Your task to perform on an android device: Show the shopping cart on bestbuy.com. Add "macbook" to the cart on bestbuy.com Image 0: 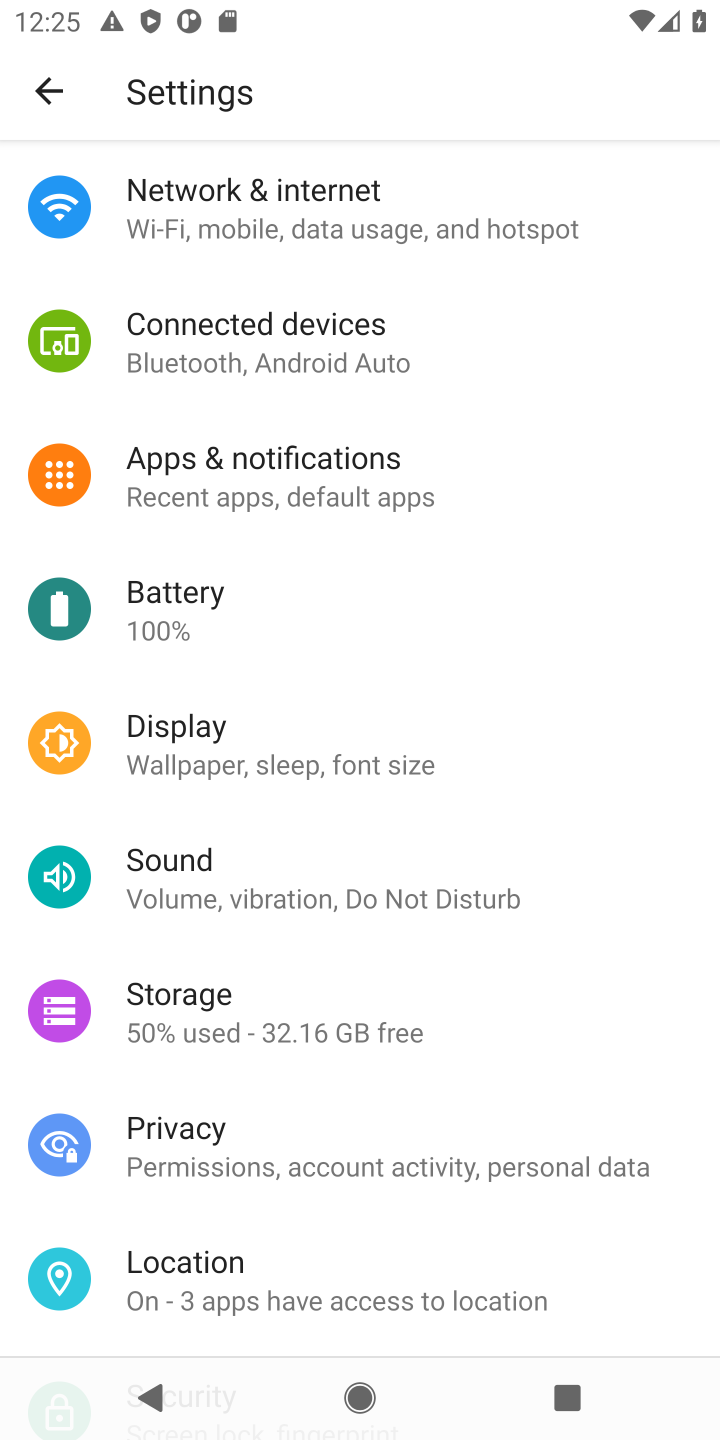
Step 0: press home button
Your task to perform on an android device: Show the shopping cart on bestbuy.com. Add "macbook" to the cart on bestbuy.com Image 1: 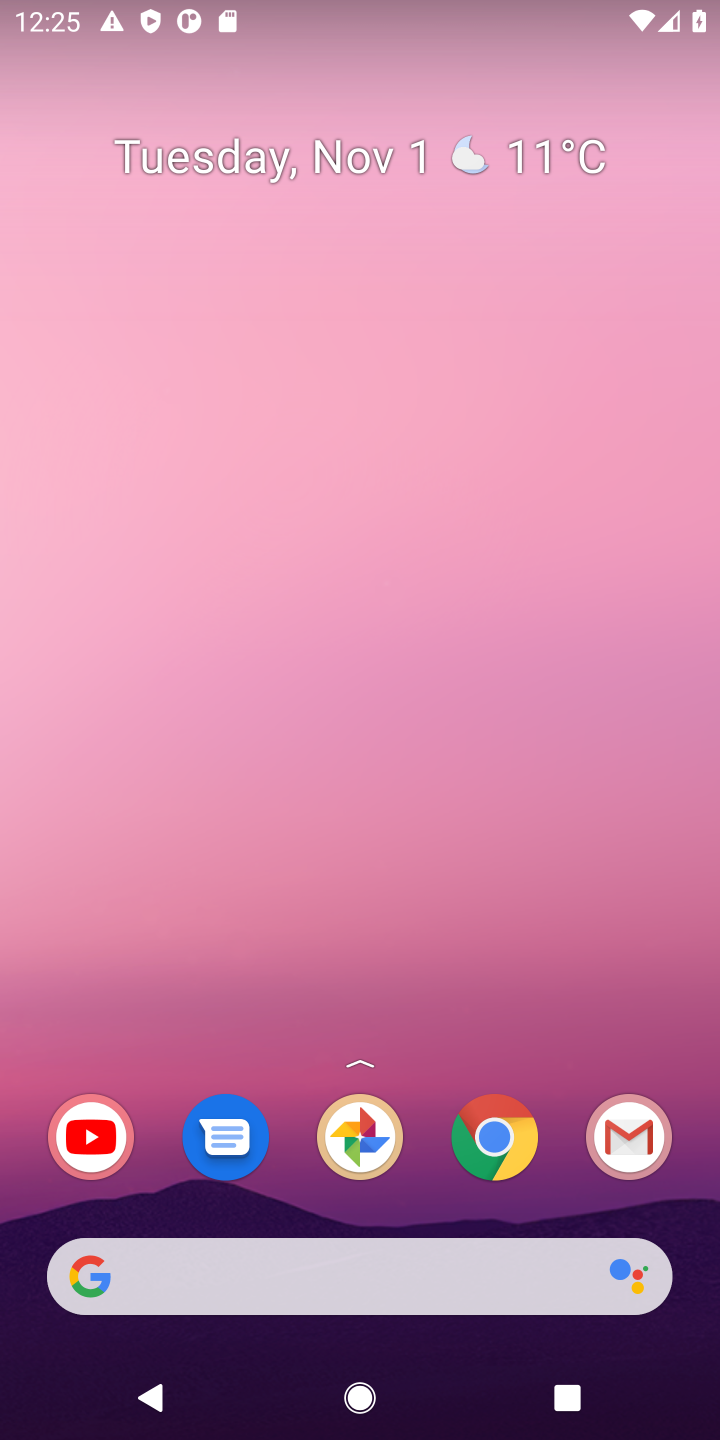
Step 1: click (498, 1132)
Your task to perform on an android device: Show the shopping cart on bestbuy.com. Add "macbook" to the cart on bestbuy.com Image 2: 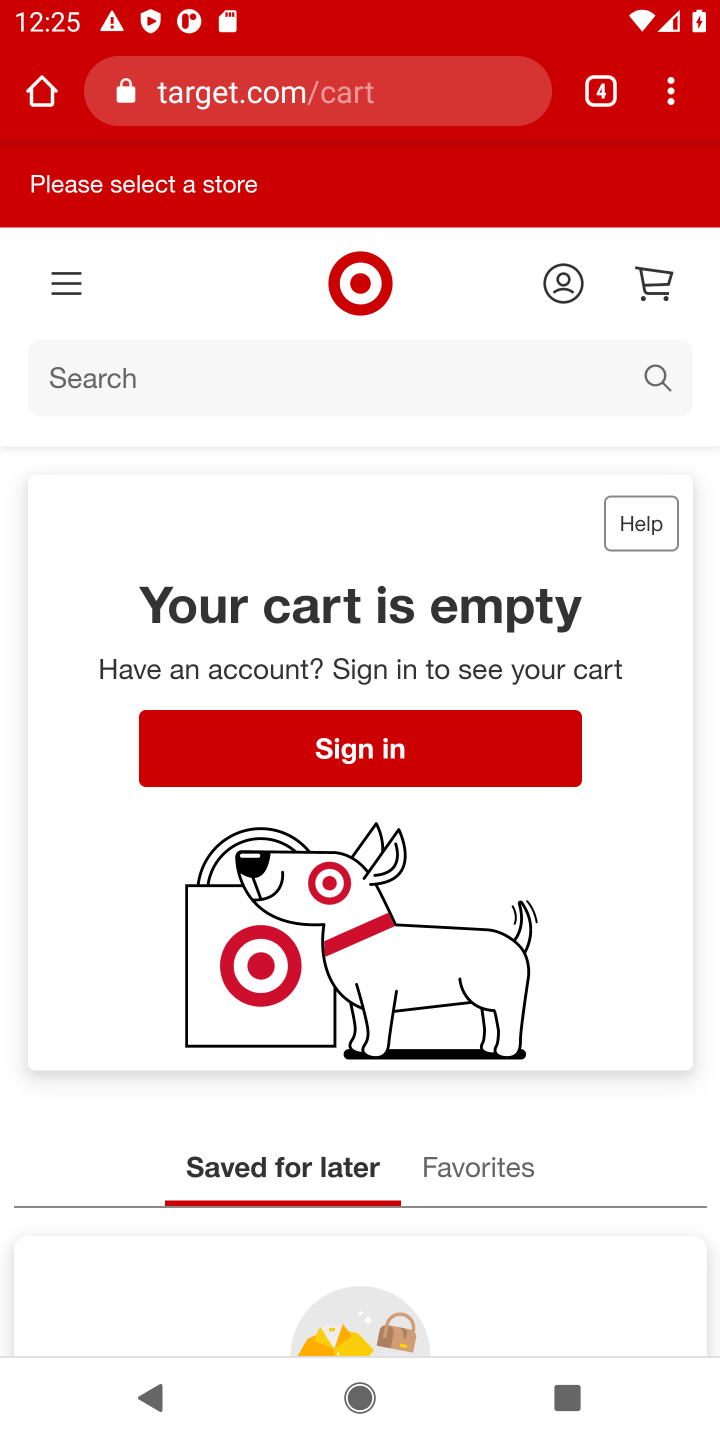
Step 2: click (606, 91)
Your task to perform on an android device: Show the shopping cart on bestbuy.com. Add "macbook" to the cart on bestbuy.com Image 3: 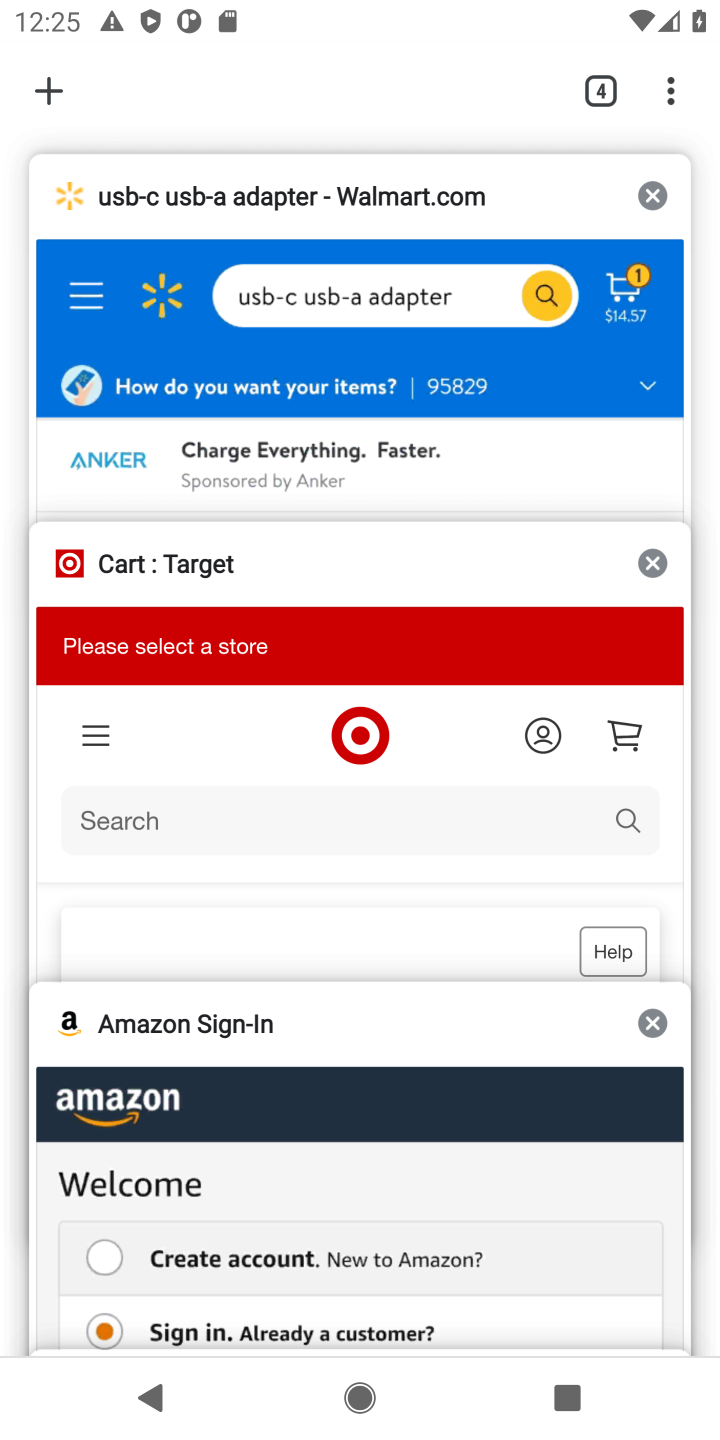
Step 3: click (46, 105)
Your task to perform on an android device: Show the shopping cart on bestbuy.com. Add "macbook" to the cart on bestbuy.com Image 4: 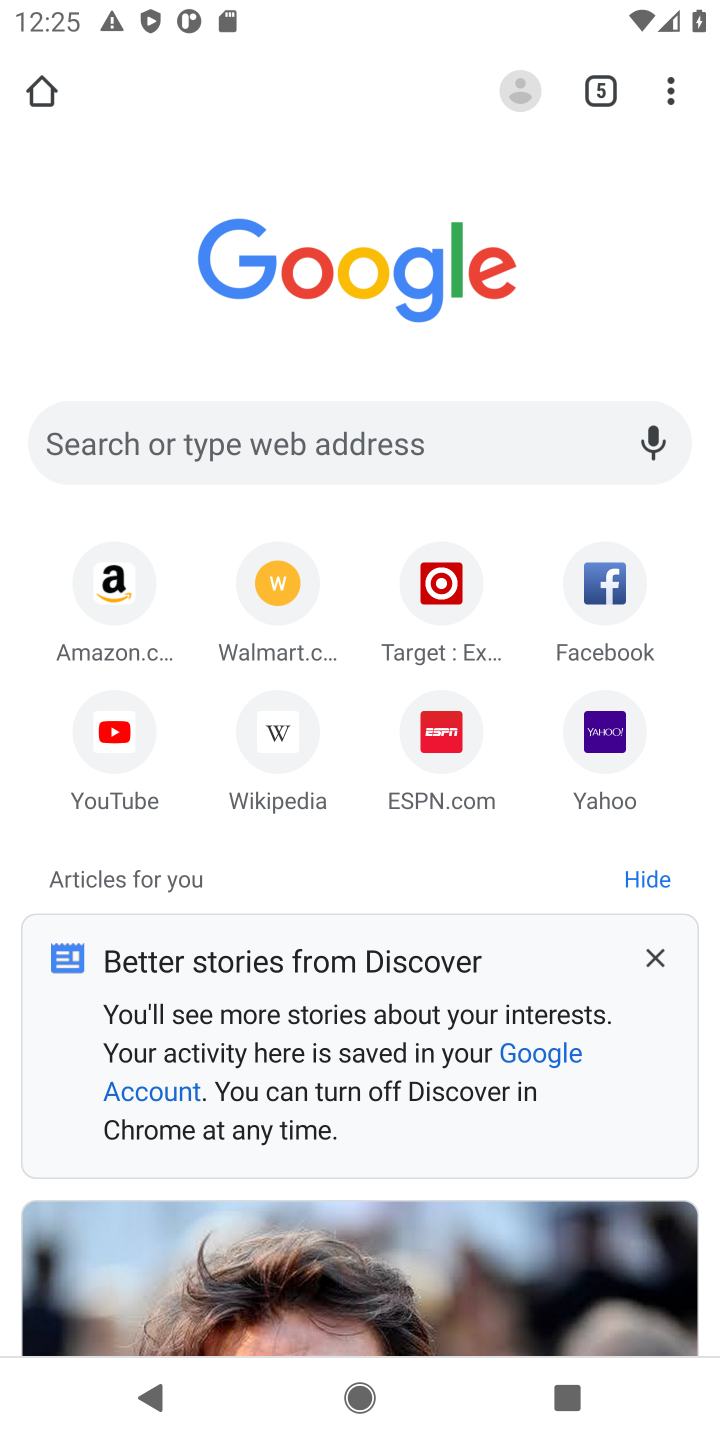
Step 4: click (376, 459)
Your task to perform on an android device: Show the shopping cart on bestbuy.com. Add "macbook" to the cart on bestbuy.com Image 5: 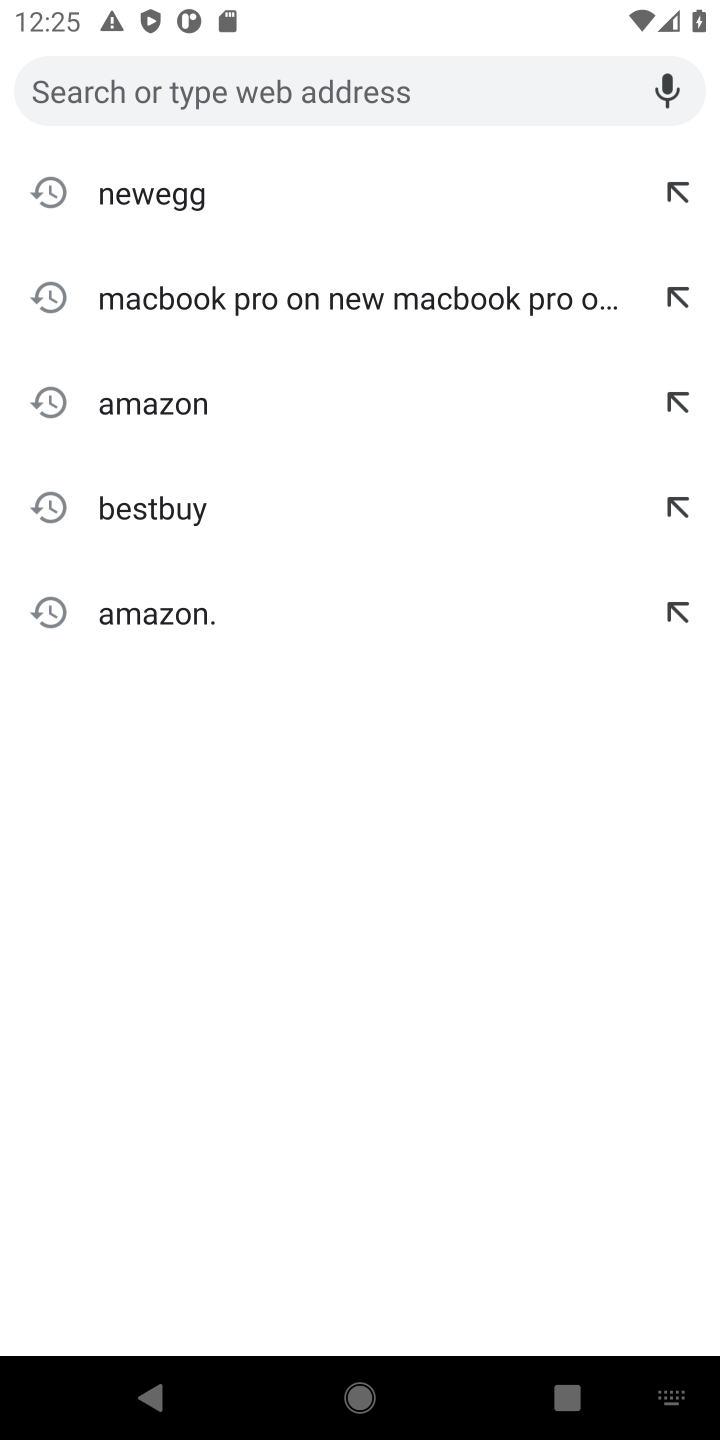
Step 5: type "bestbuy"
Your task to perform on an android device: Show the shopping cart on bestbuy.com. Add "macbook" to the cart on bestbuy.com Image 6: 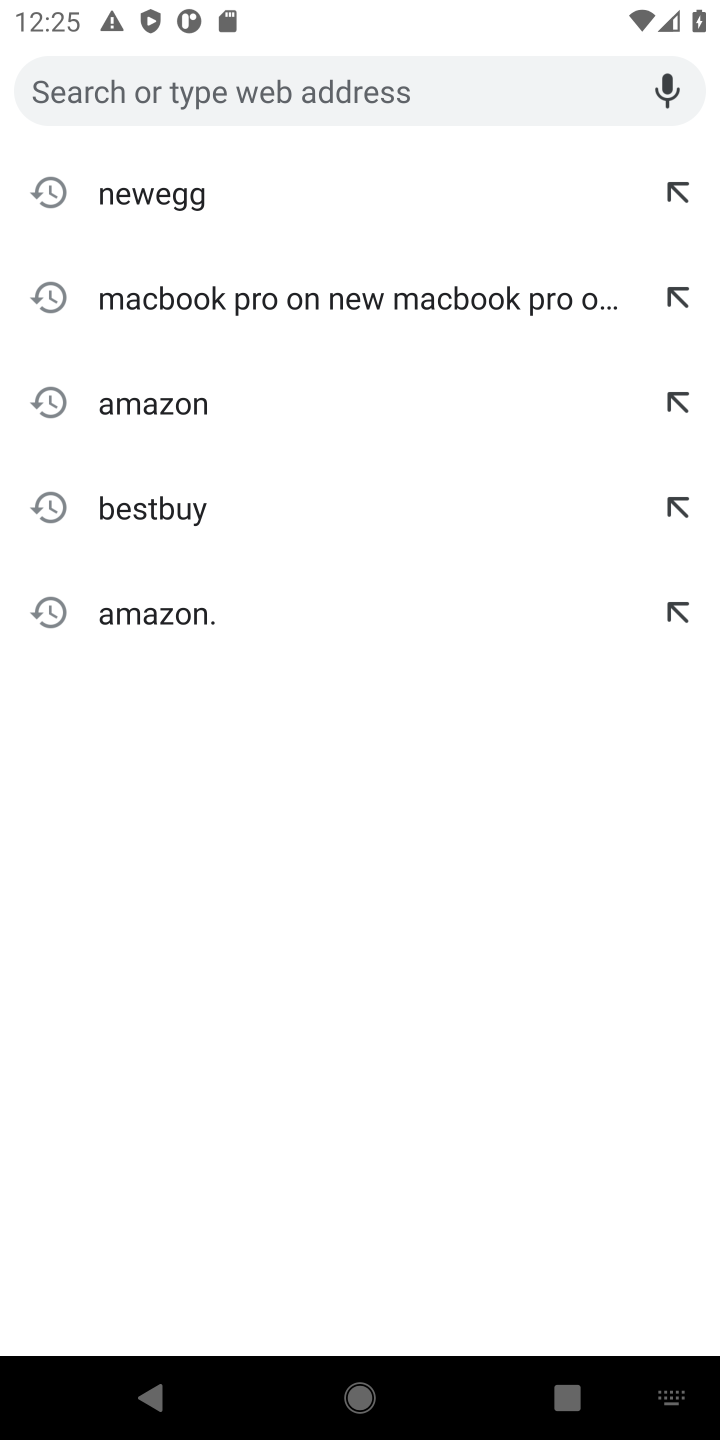
Step 6: click (174, 502)
Your task to perform on an android device: Show the shopping cart on bestbuy.com. Add "macbook" to the cart on bestbuy.com Image 7: 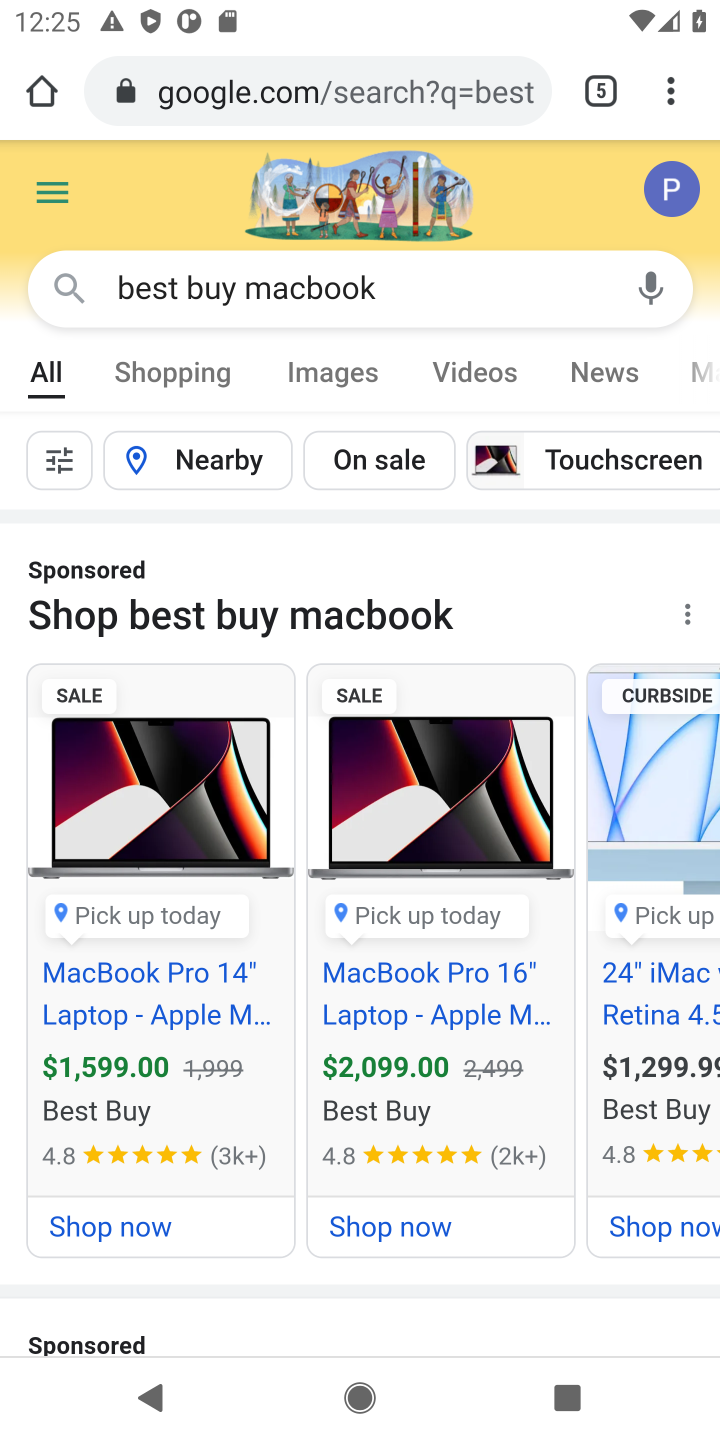
Step 7: click (176, 1002)
Your task to perform on an android device: Show the shopping cart on bestbuy.com. Add "macbook" to the cart on bestbuy.com Image 8: 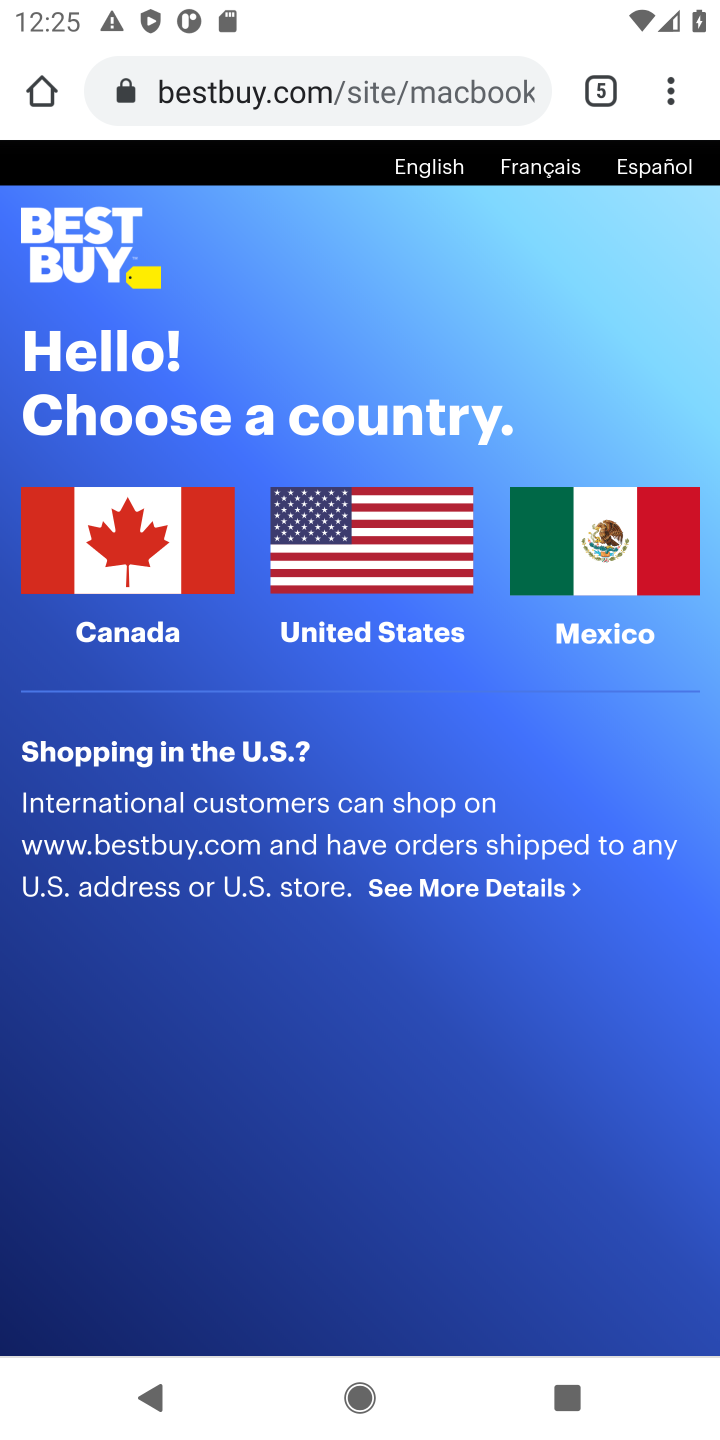
Step 8: click (359, 533)
Your task to perform on an android device: Show the shopping cart on bestbuy.com. Add "macbook" to the cart on bestbuy.com Image 9: 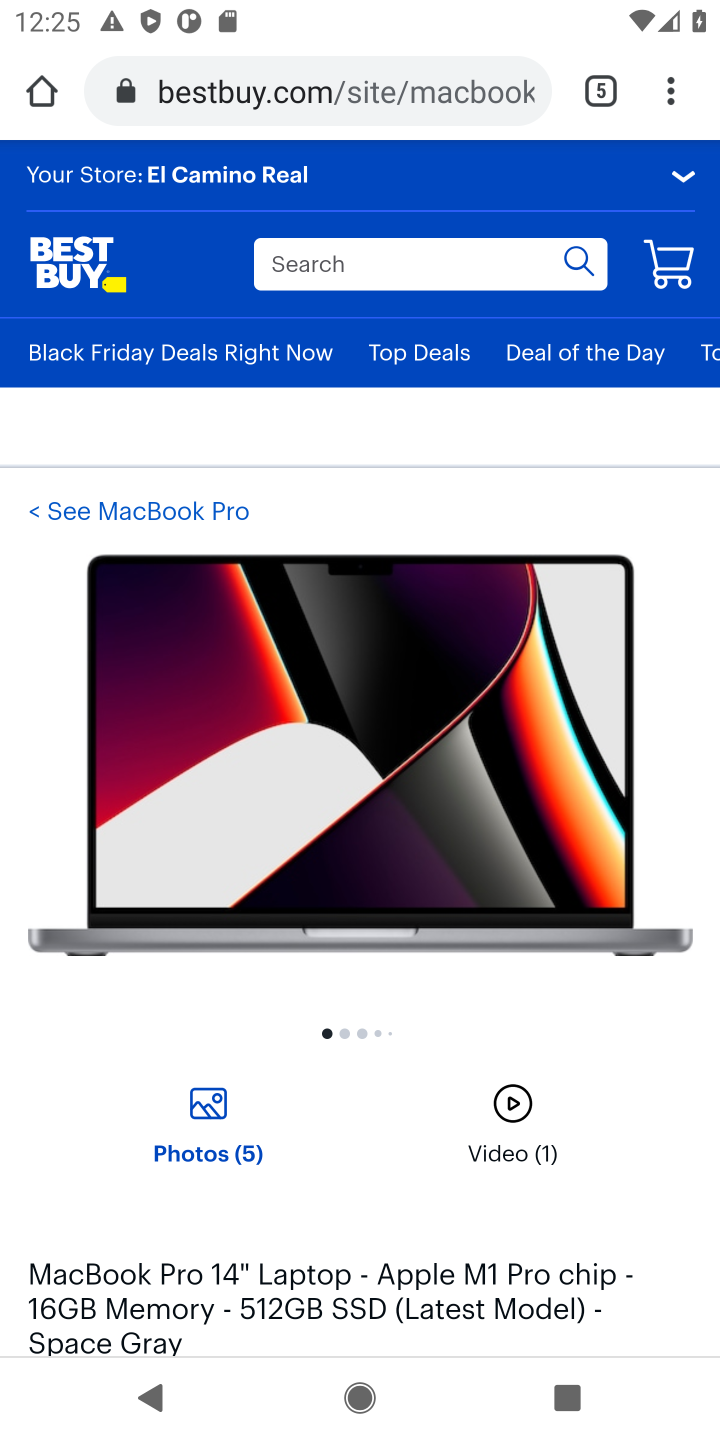
Step 9: drag from (384, 1167) to (582, 533)
Your task to perform on an android device: Show the shopping cart on bestbuy.com. Add "macbook" to the cart on bestbuy.com Image 10: 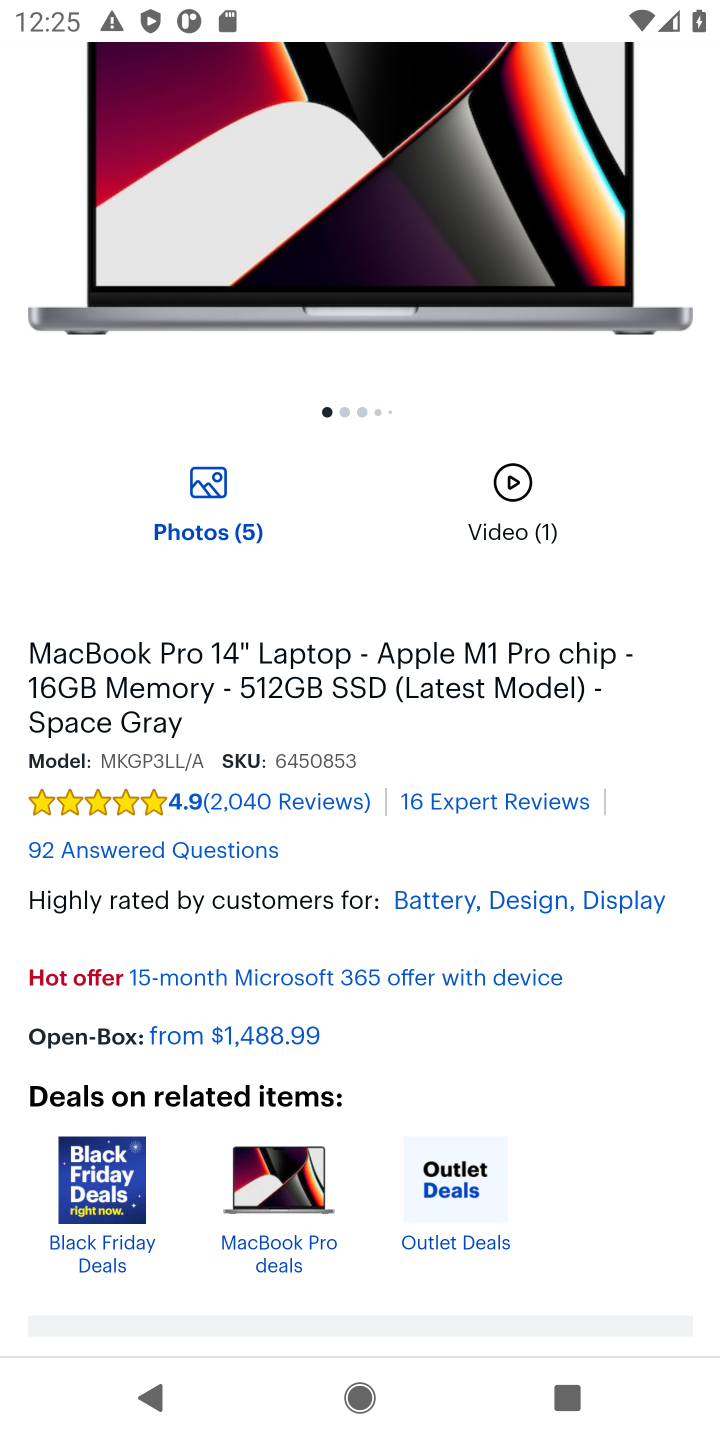
Step 10: drag from (438, 950) to (670, 56)
Your task to perform on an android device: Show the shopping cart on bestbuy.com. Add "macbook" to the cart on bestbuy.com Image 11: 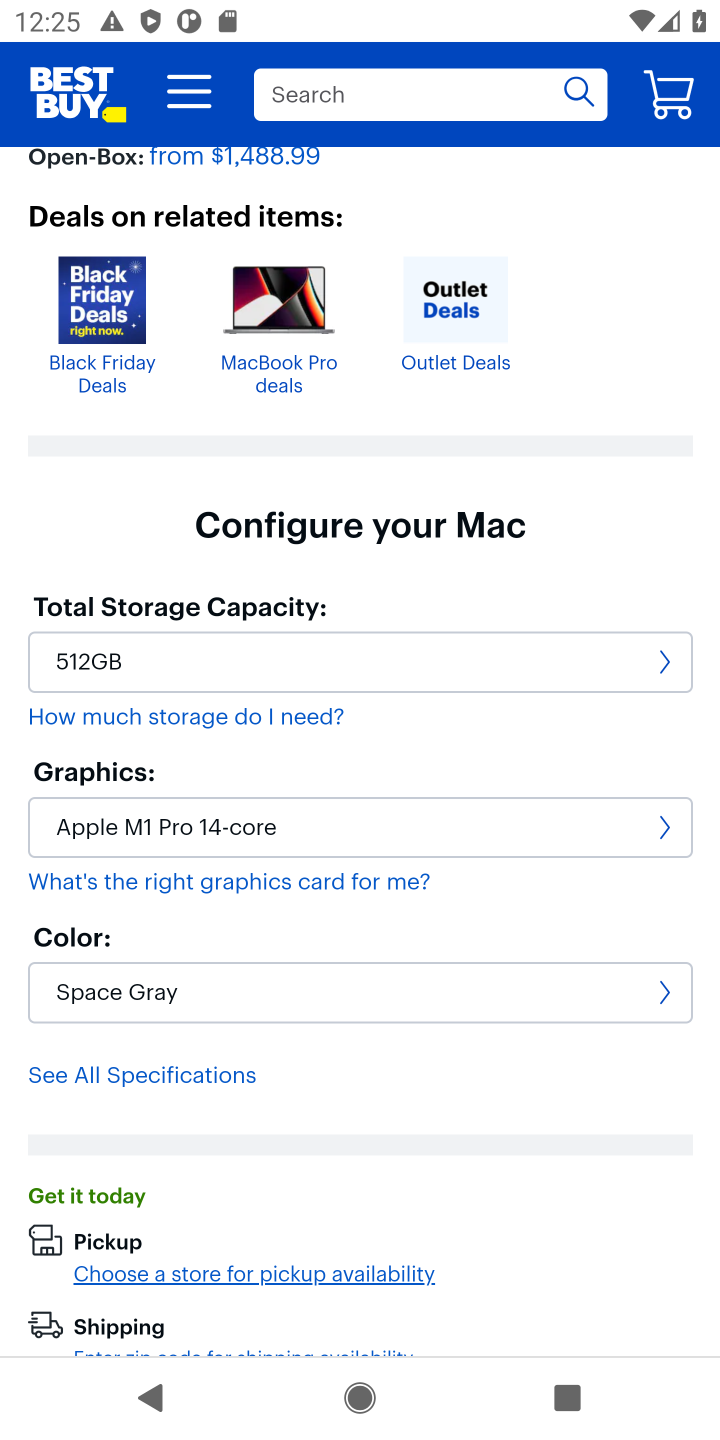
Step 11: drag from (406, 1254) to (578, 317)
Your task to perform on an android device: Show the shopping cart on bestbuy.com. Add "macbook" to the cart on bestbuy.com Image 12: 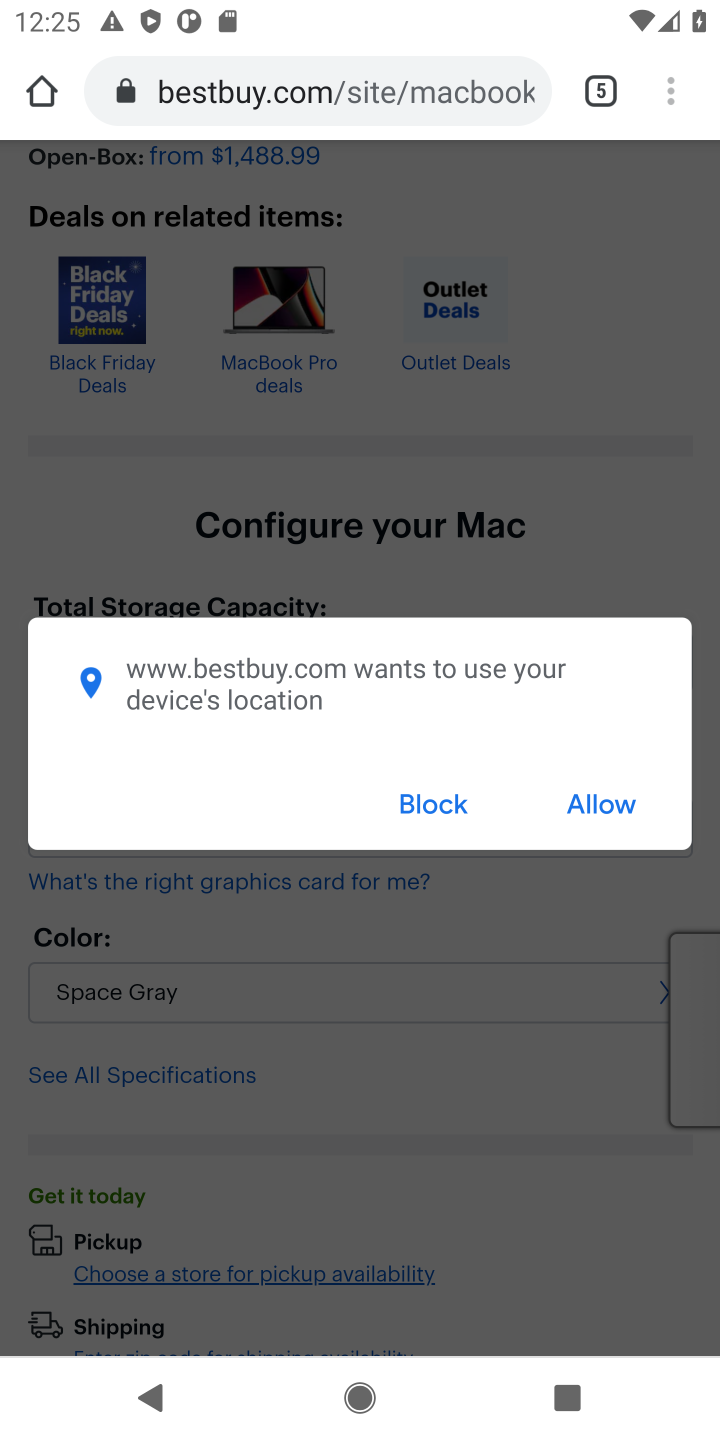
Step 12: click (443, 799)
Your task to perform on an android device: Show the shopping cart on bestbuy.com. Add "macbook" to the cart on bestbuy.com Image 13: 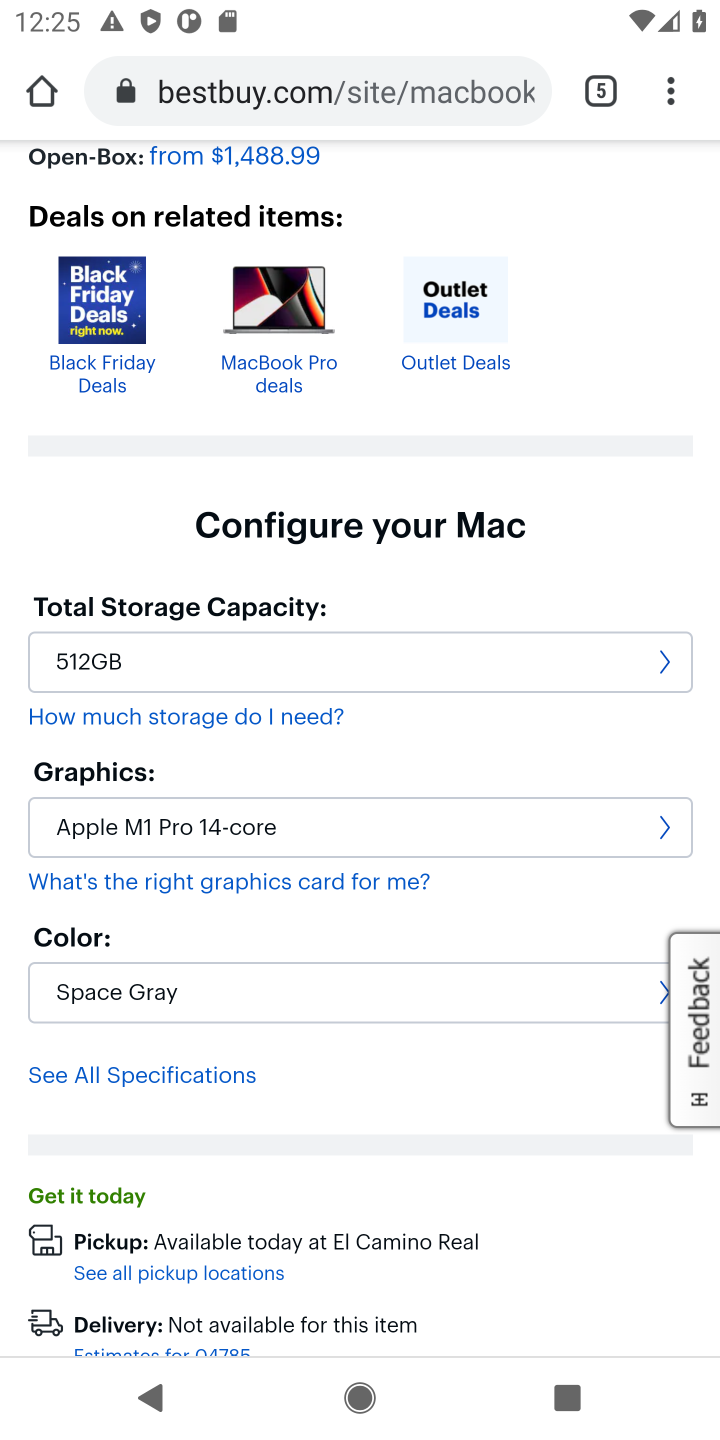
Step 13: drag from (545, 1153) to (687, 171)
Your task to perform on an android device: Show the shopping cart on bestbuy.com. Add "macbook" to the cart on bestbuy.com Image 14: 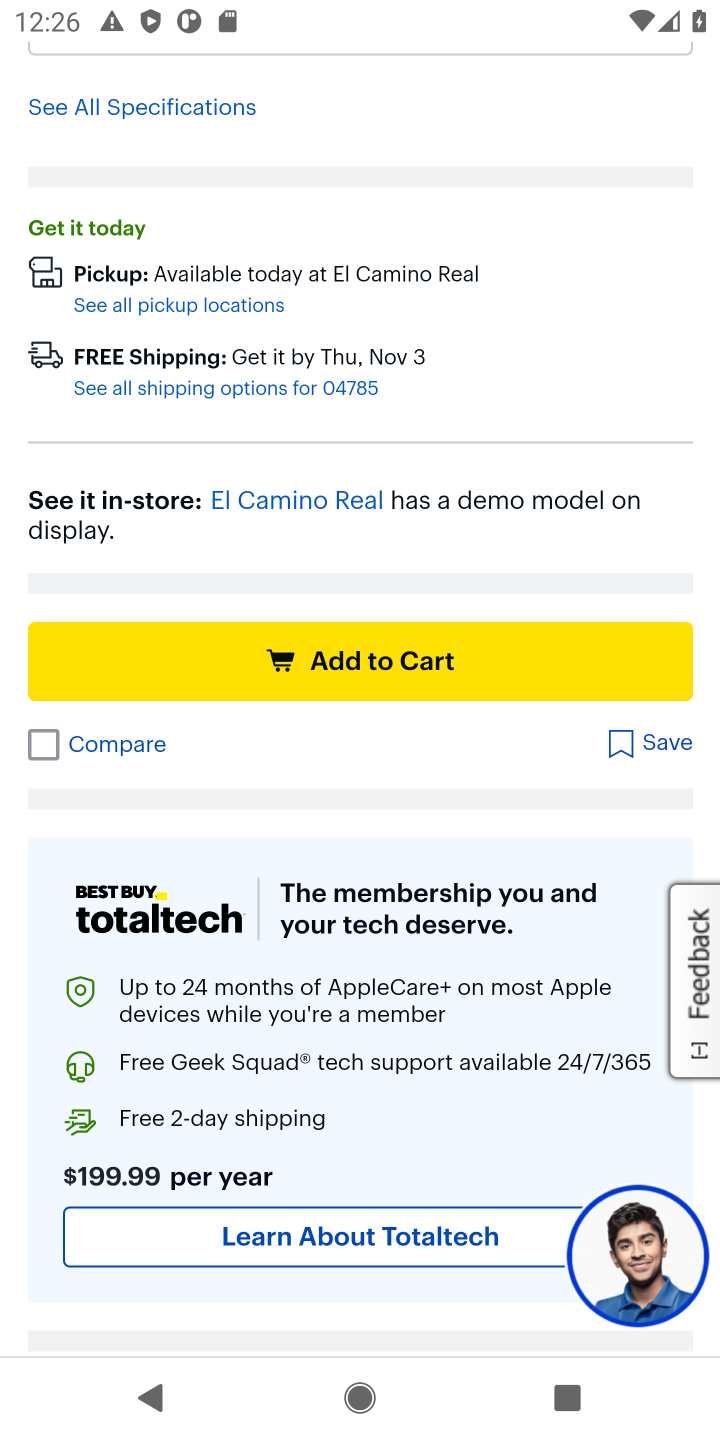
Step 14: click (427, 663)
Your task to perform on an android device: Show the shopping cart on bestbuy.com. Add "macbook" to the cart on bestbuy.com Image 15: 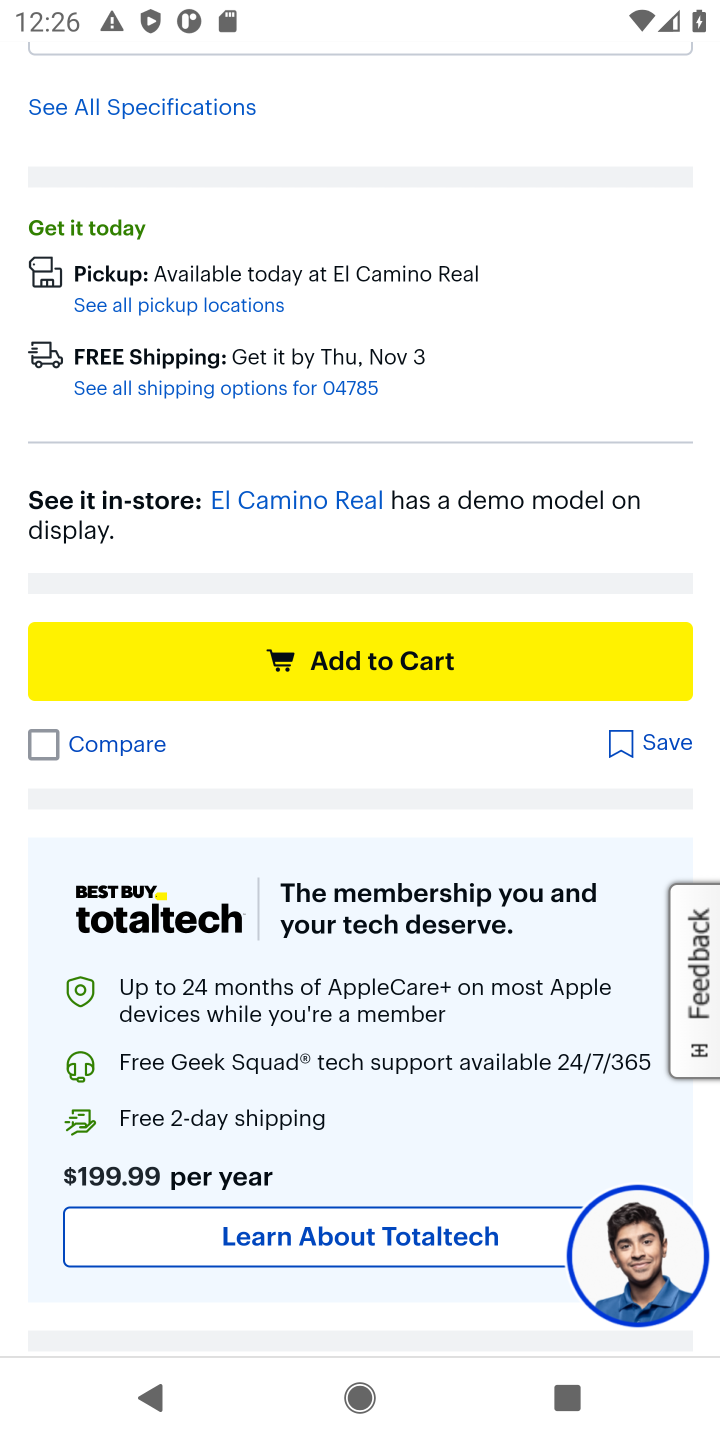
Step 15: task complete